Your task to perform on an android device: change your default location settings in chrome Image 0: 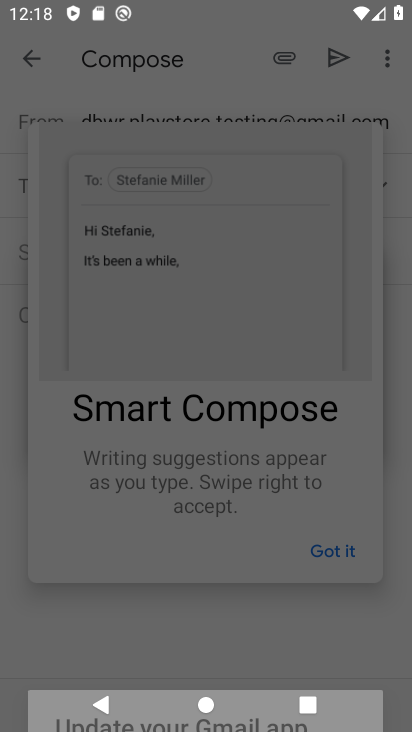
Step 0: press back button
Your task to perform on an android device: change your default location settings in chrome Image 1: 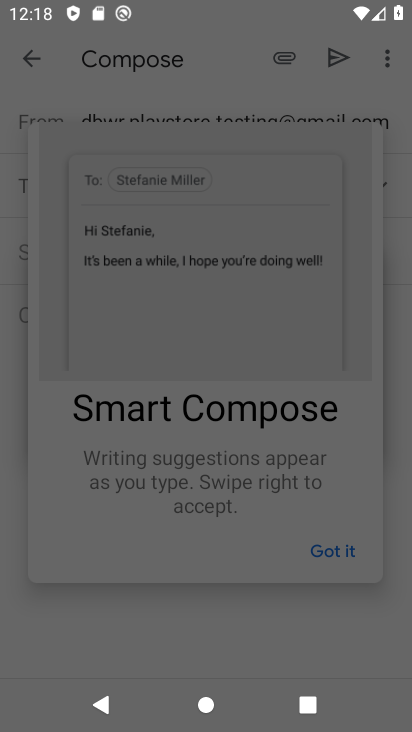
Step 1: press home button
Your task to perform on an android device: change your default location settings in chrome Image 2: 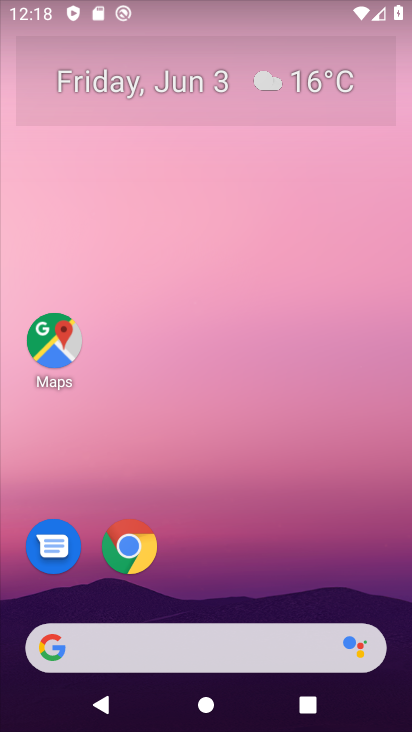
Step 2: click (121, 543)
Your task to perform on an android device: change your default location settings in chrome Image 3: 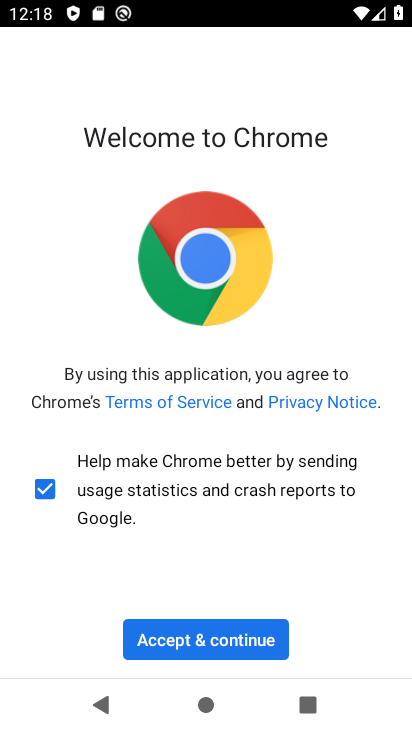
Step 3: click (186, 651)
Your task to perform on an android device: change your default location settings in chrome Image 4: 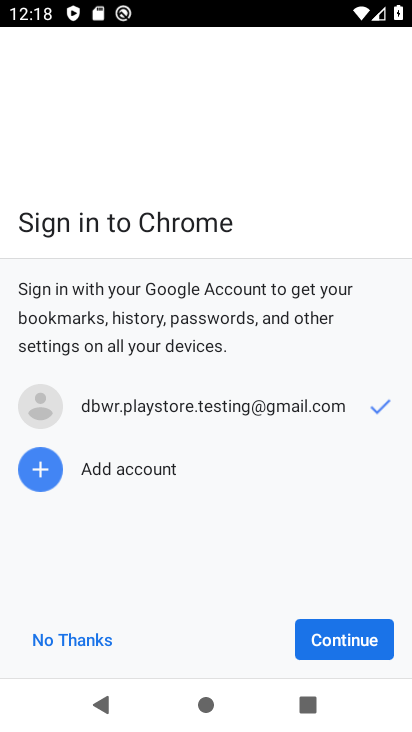
Step 4: click (336, 646)
Your task to perform on an android device: change your default location settings in chrome Image 5: 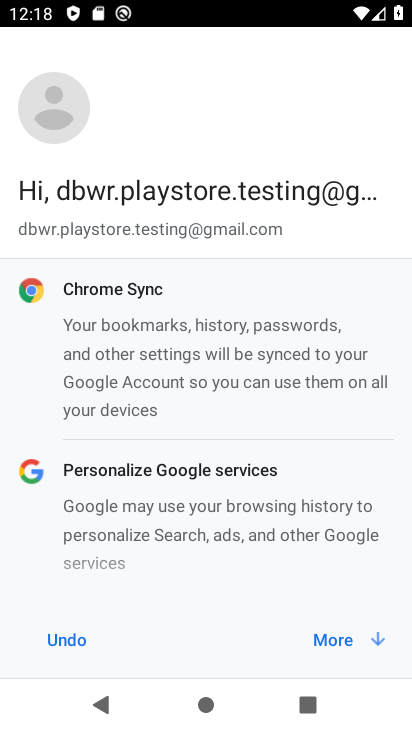
Step 5: click (334, 643)
Your task to perform on an android device: change your default location settings in chrome Image 6: 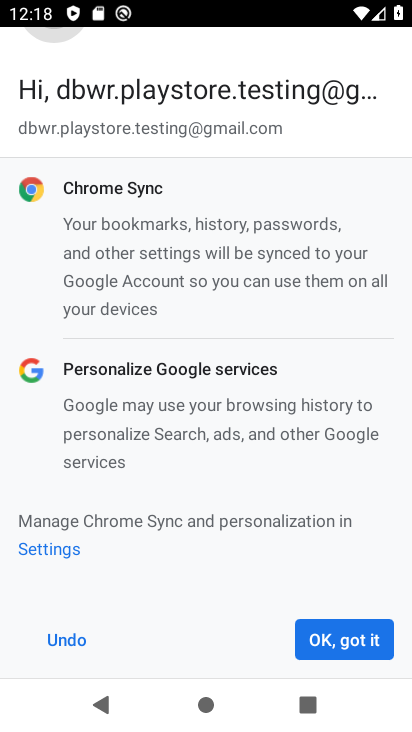
Step 6: click (346, 638)
Your task to perform on an android device: change your default location settings in chrome Image 7: 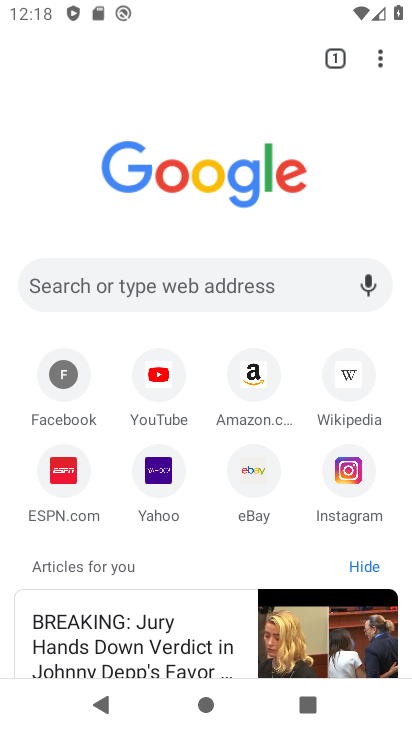
Step 7: drag from (377, 58) to (175, 490)
Your task to perform on an android device: change your default location settings in chrome Image 8: 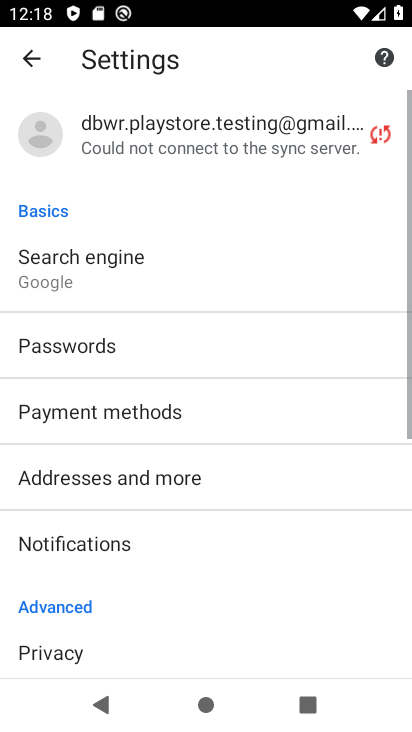
Step 8: drag from (149, 630) to (211, 171)
Your task to perform on an android device: change your default location settings in chrome Image 9: 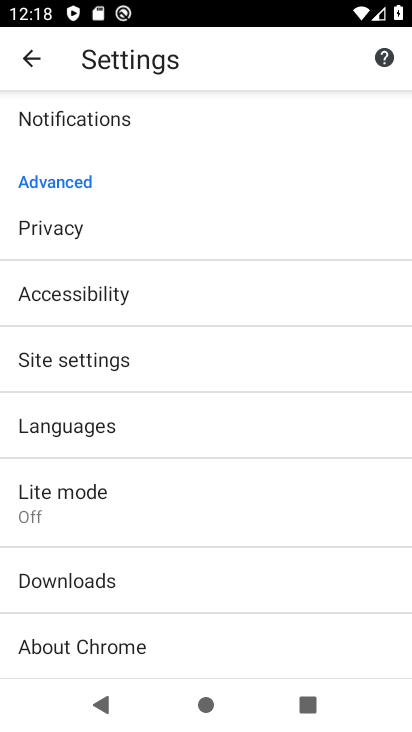
Step 9: click (131, 360)
Your task to perform on an android device: change your default location settings in chrome Image 10: 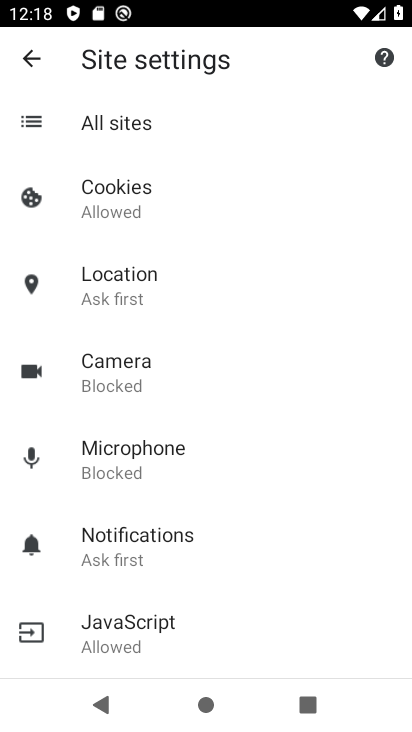
Step 10: click (164, 295)
Your task to perform on an android device: change your default location settings in chrome Image 11: 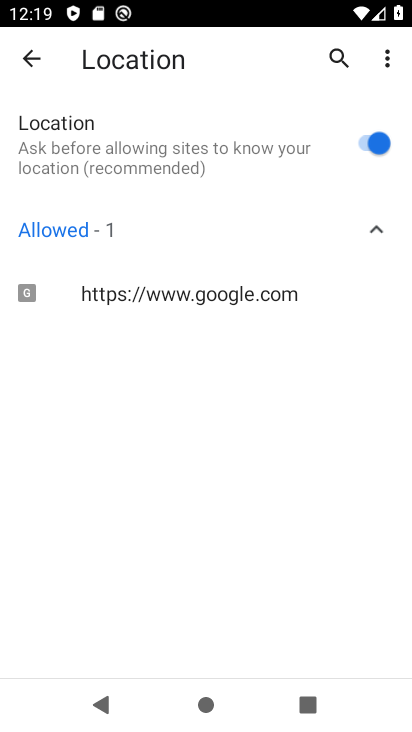
Step 11: click (381, 141)
Your task to perform on an android device: change your default location settings in chrome Image 12: 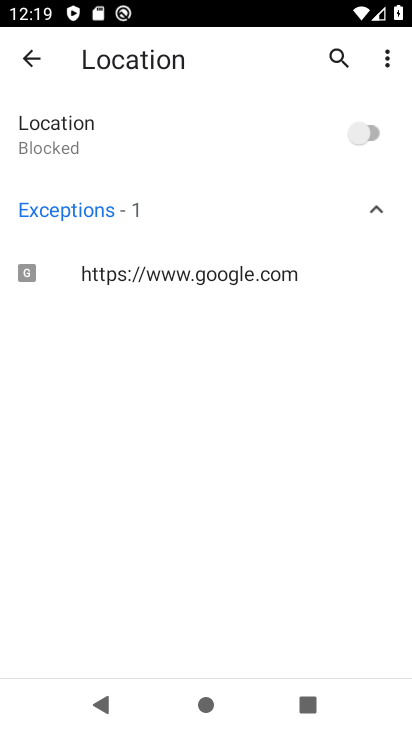
Step 12: task complete